Your task to perform on an android device: Go to notification settings Image 0: 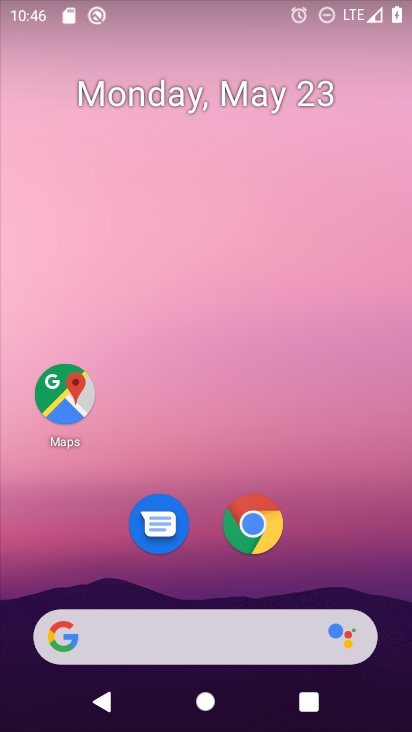
Step 0: drag from (227, 462) to (255, 45)
Your task to perform on an android device: Go to notification settings Image 1: 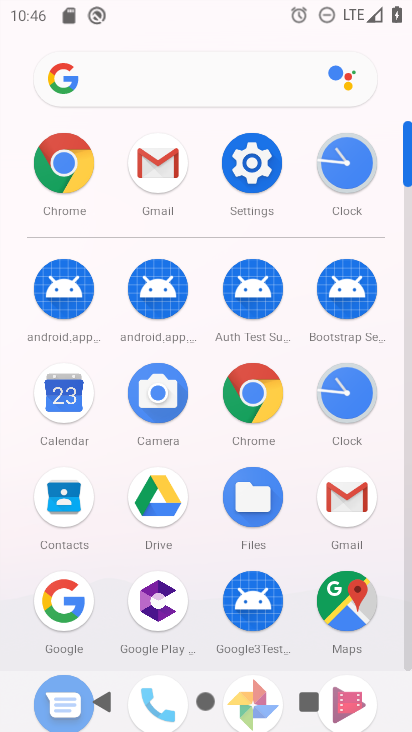
Step 1: drag from (210, 452) to (200, 297)
Your task to perform on an android device: Go to notification settings Image 2: 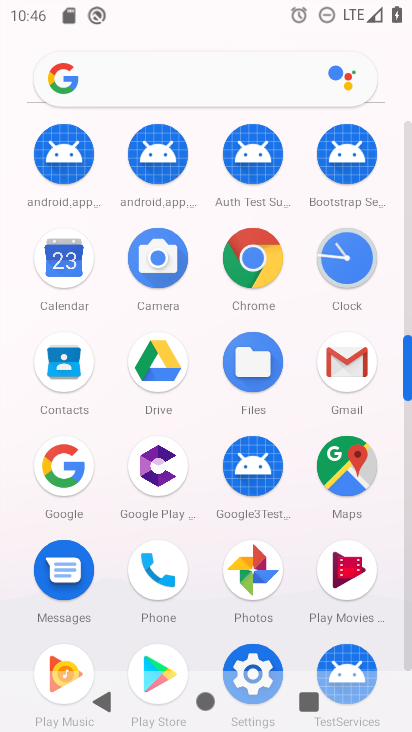
Step 2: drag from (212, 202) to (192, 557)
Your task to perform on an android device: Go to notification settings Image 3: 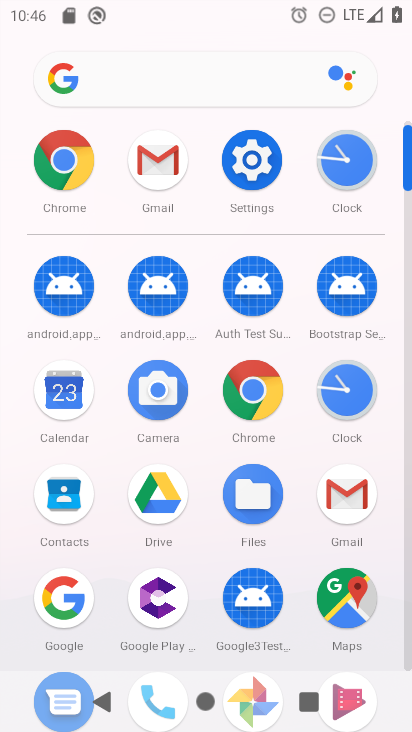
Step 3: click (255, 154)
Your task to perform on an android device: Go to notification settings Image 4: 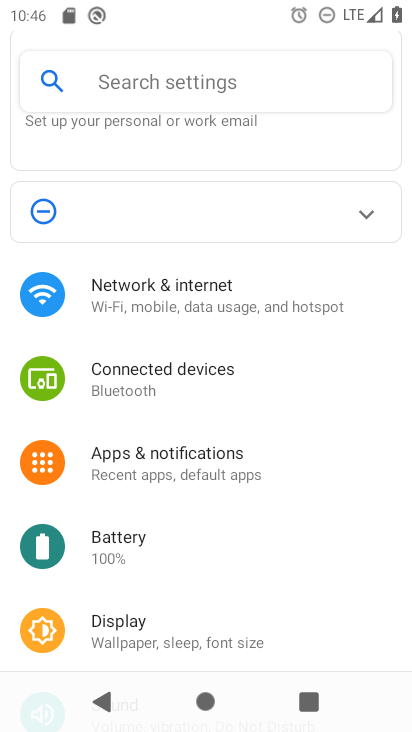
Step 4: click (193, 462)
Your task to perform on an android device: Go to notification settings Image 5: 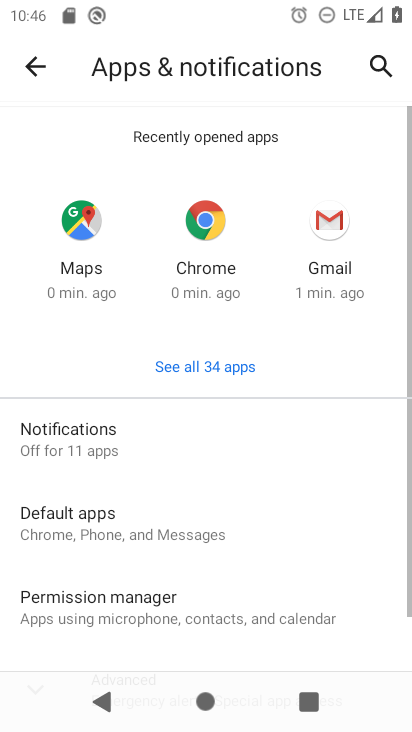
Step 5: click (178, 436)
Your task to perform on an android device: Go to notification settings Image 6: 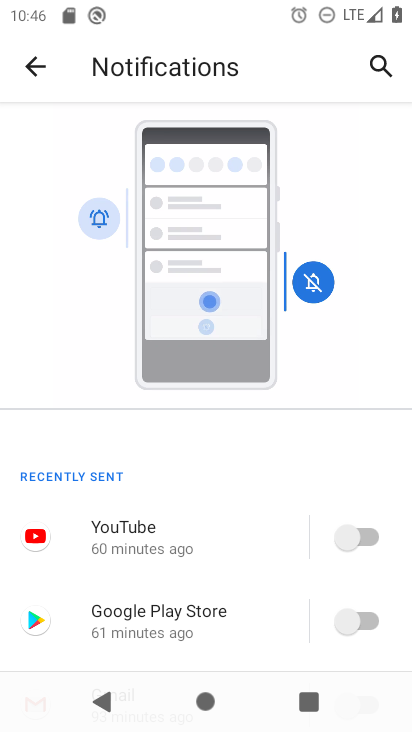
Step 6: task complete